Your task to perform on an android device: Open Chrome and go to the settings page Image 0: 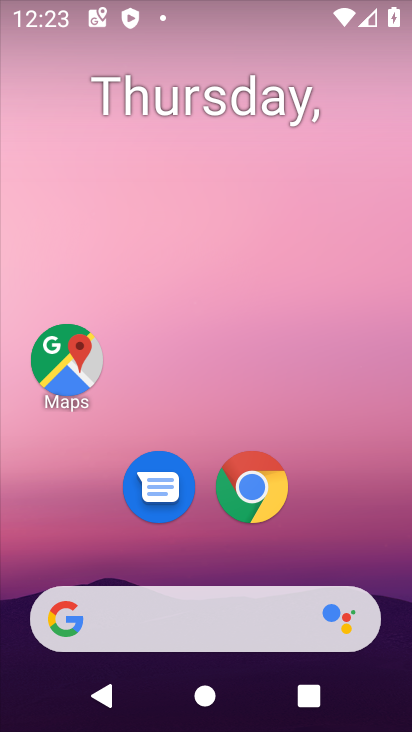
Step 0: click (266, 493)
Your task to perform on an android device: Open Chrome and go to the settings page Image 1: 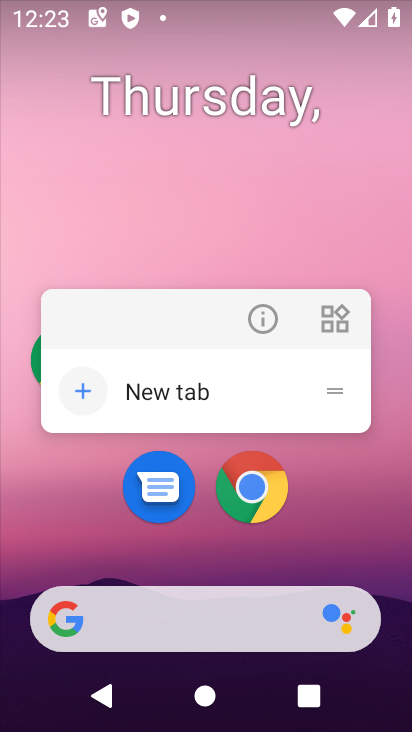
Step 1: click (276, 482)
Your task to perform on an android device: Open Chrome and go to the settings page Image 2: 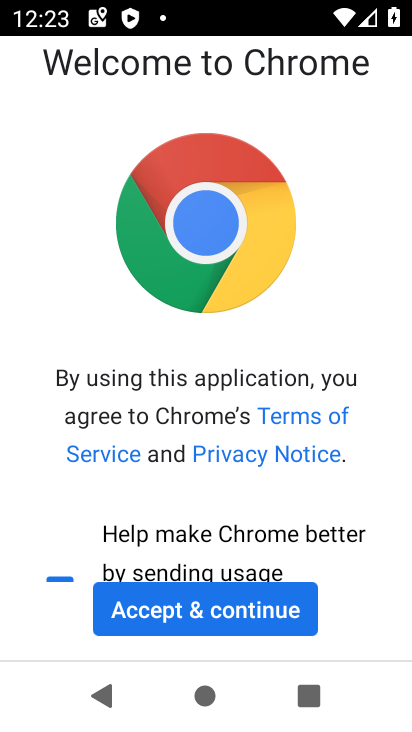
Step 2: click (216, 610)
Your task to perform on an android device: Open Chrome and go to the settings page Image 3: 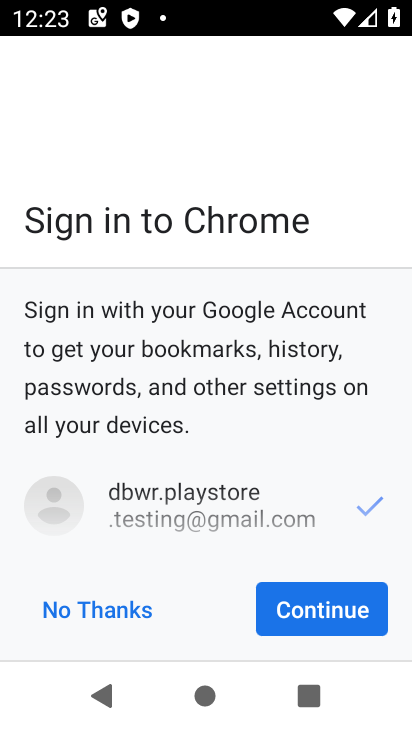
Step 3: click (268, 607)
Your task to perform on an android device: Open Chrome and go to the settings page Image 4: 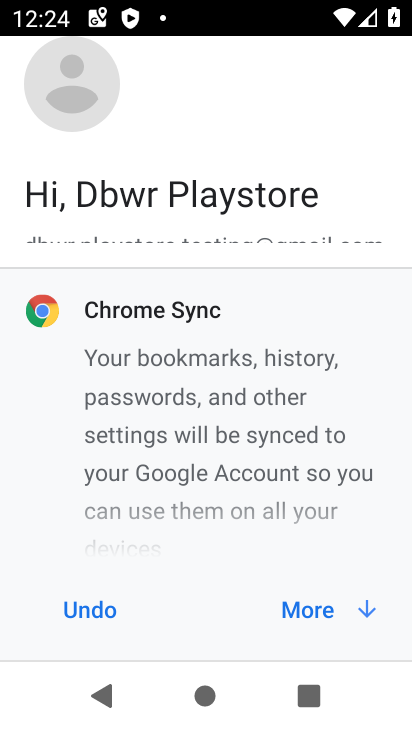
Step 4: click (287, 611)
Your task to perform on an android device: Open Chrome and go to the settings page Image 5: 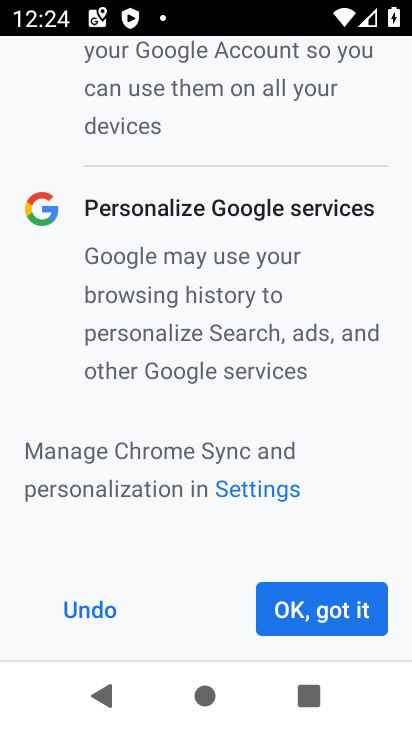
Step 5: click (287, 611)
Your task to perform on an android device: Open Chrome and go to the settings page Image 6: 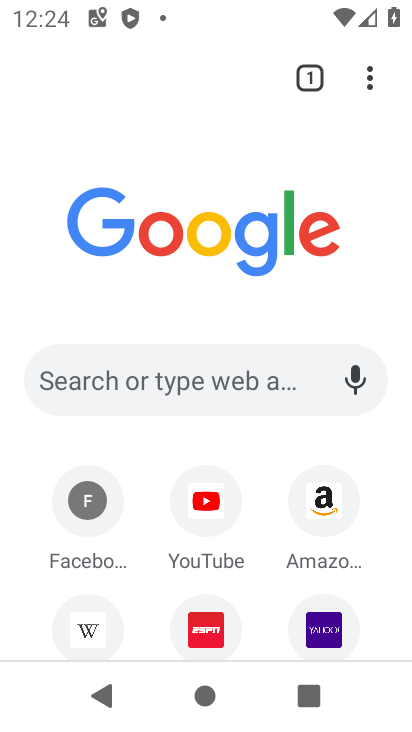
Step 6: click (382, 80)
Your task to perform on an android device: Open Chrome and go to the settings page Image 7: 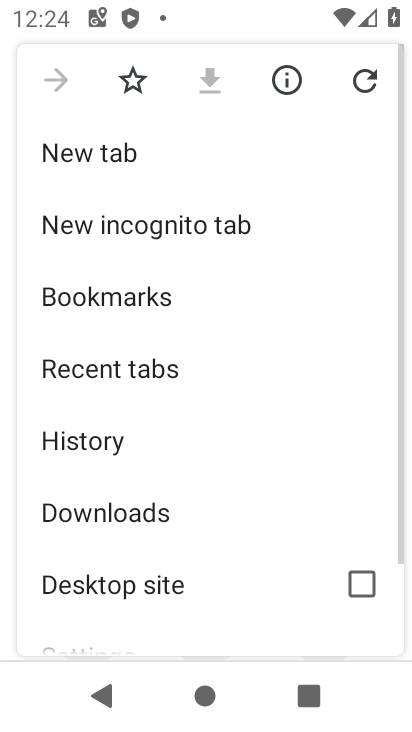
Step 7: drag from (260, 588) to (221, 140)
Your task to perform on an android device: Open Chrome and go to the settings page Image 8: 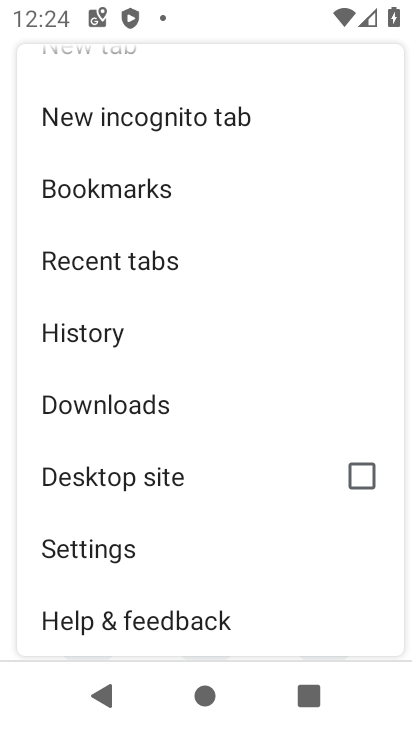
Step 8: click (200, 539)
Your task to perform on an android device: Open Chrome and go to the settings page Image 9: 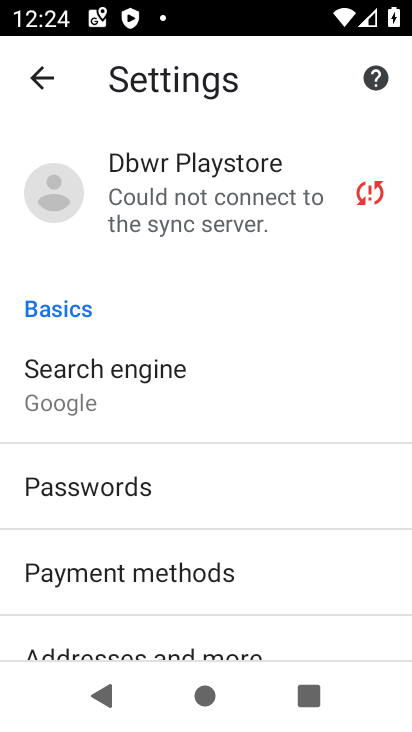
Step 9: task complete